Your task to perform on an android device: create a new album in the google photos Image 0: 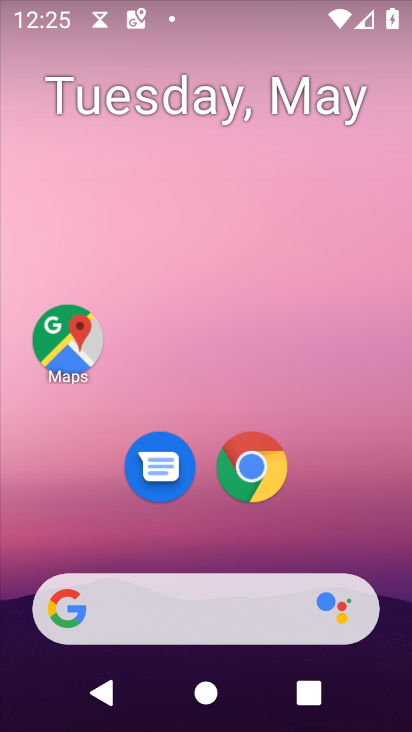
Step 0: drag from (321, 528) to (327, 22)
Your task to perform on an android device: create a new album in the google photos Image 1: 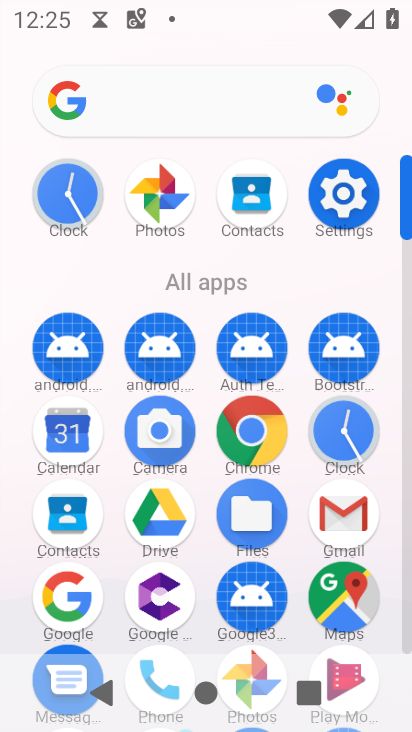
Step 1: drag from (306, 631) to (268, 372)
Your task to perform on an android device: create a new album in the google photos Image 2: 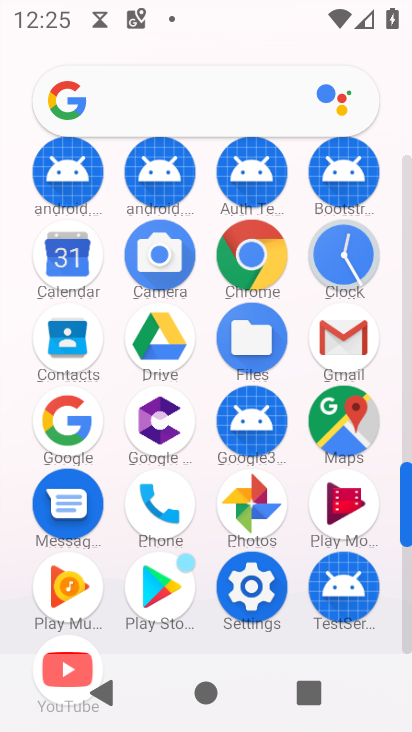
Step 2: click (253, 506)
Your task to perform on an android device: create a new album in the google photos Image 3: 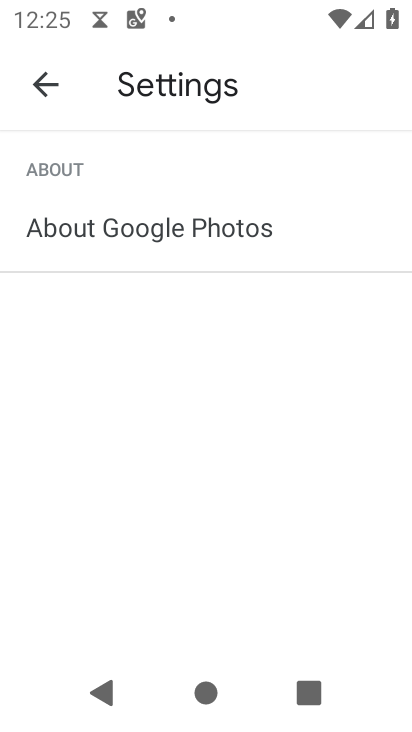
Step 3: click (44, 72)
Your task to perform on an android device: create a new album in the google photos Image 4: 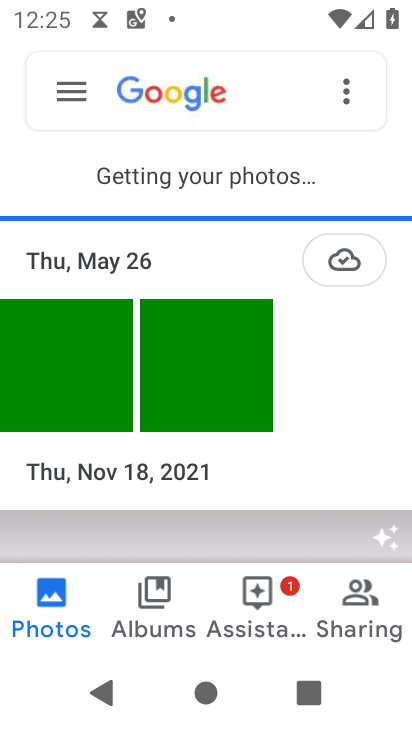
Step 4: click (346, 102)
Your task to perform on an android device: create a new album in the google photos Image 5: 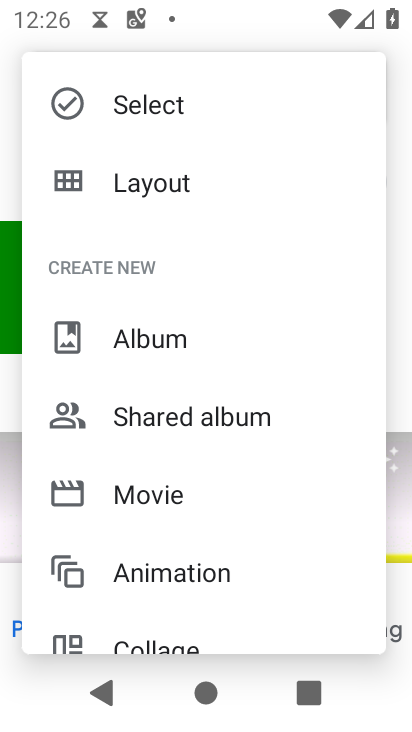
Step 5: drag from (224, 567) to (220, 177)
Your task to perform on an android device: create a new album in the google photos Image 6: 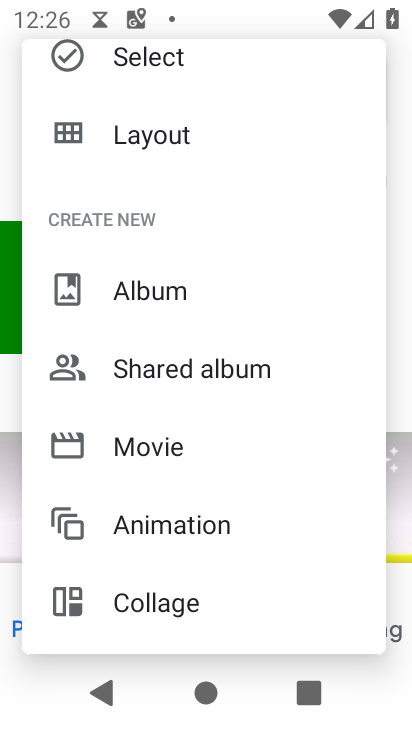
Step 6: click (170, 293)
Your task to perform on an android device: create a new album in the google photos Image 7: 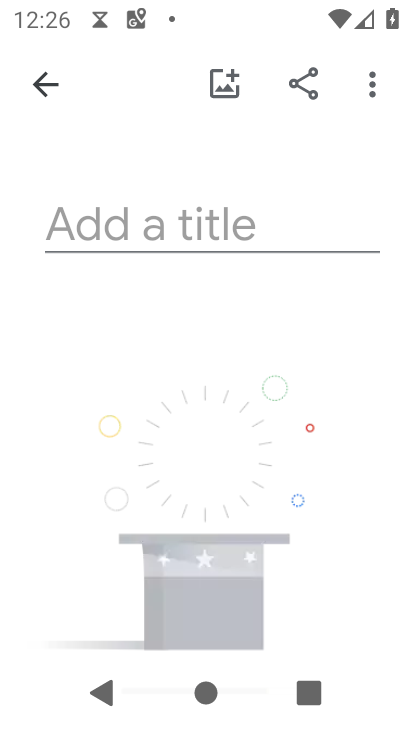
Step 7: click (210, 239)
Your task to perform on an android device: create a new album in the google photos Image 8: 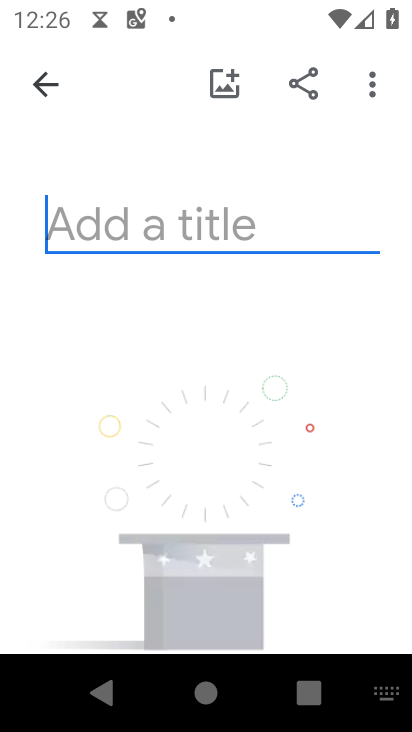
Step 8: type "htftyftf"
Your task to perform on an android device: create a new album in the google photos Image 9: 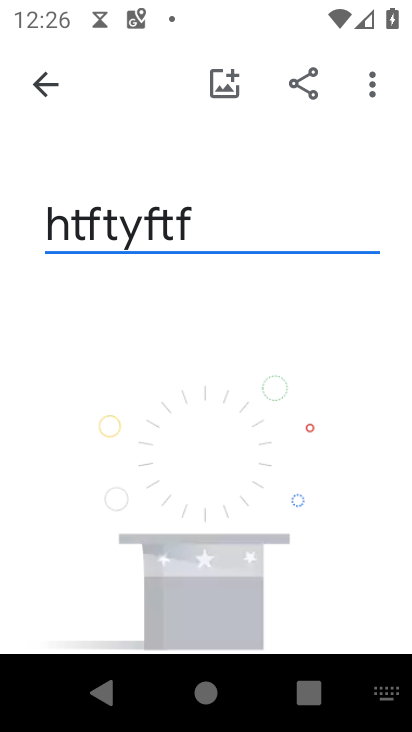
Step 9: click (221, 86)
Your task to perform on an android device: create a new album in the google photos Image 10: 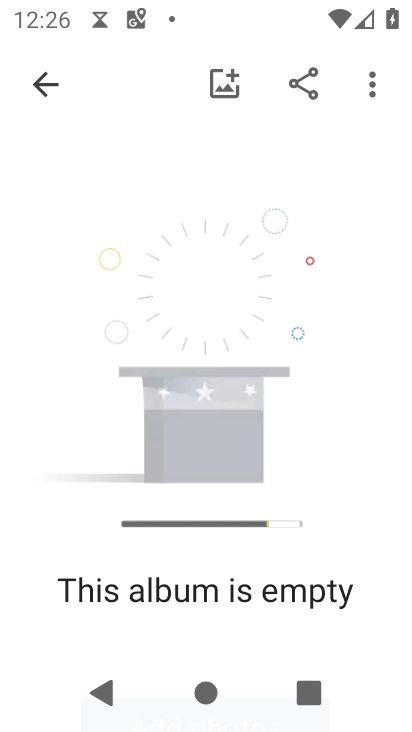
Step 10: click (225, 80)
Your task to perform on an android device: create a new album in the google photos Image 11: 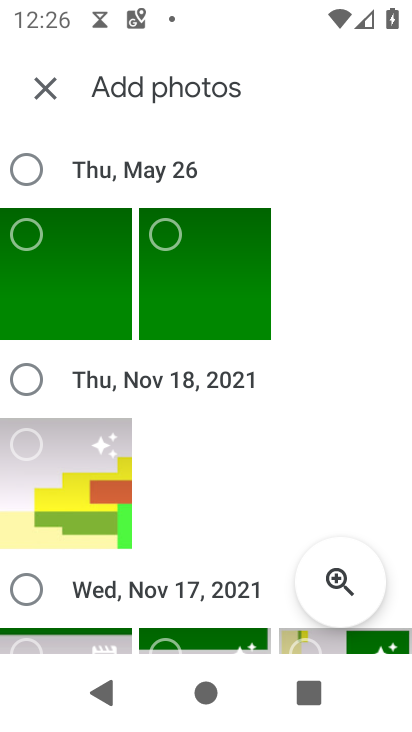
Step 11: click (162, 238)
Your task to perform on an android device: create a new album in the google photos Image 12: 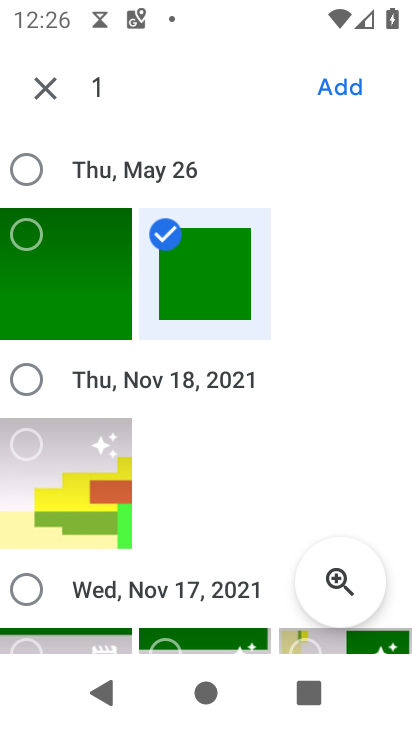
Step 12: click (25, 445)
Your task to perform on an android device: create a new album in the google photos Image 13: 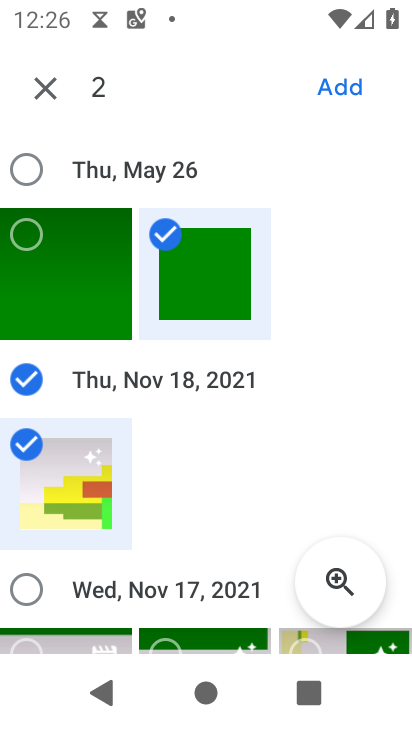
Step 13: click (340, 88)
Your task to perform on an android device: create a new album in the google photos Image 14: 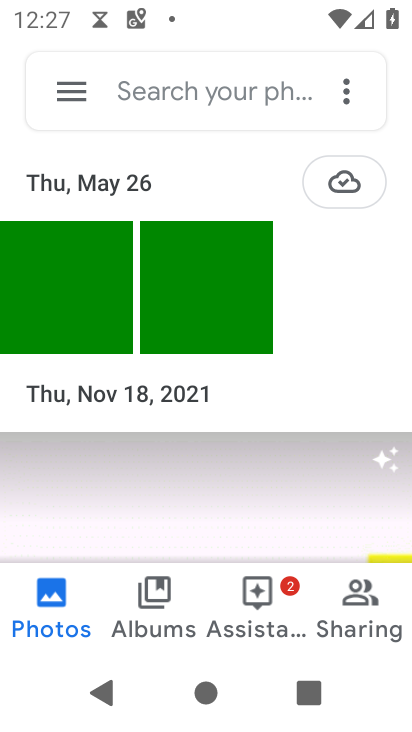
Step 14: task complete